Your task to perform on an android device: change timer sound Image 0: 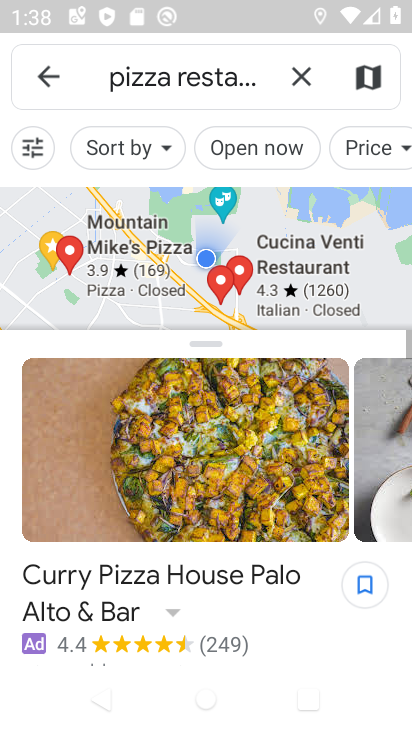
Step 0: press home button
Your task to perform on an android device: change timer sound Image 1: 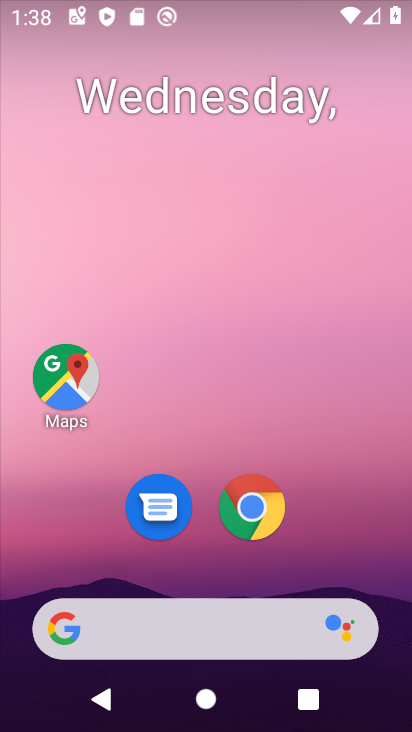
Step 1: drag from (358, 530) to (363, 157)
Your task to perform on an android device: change timer sound Image 2: 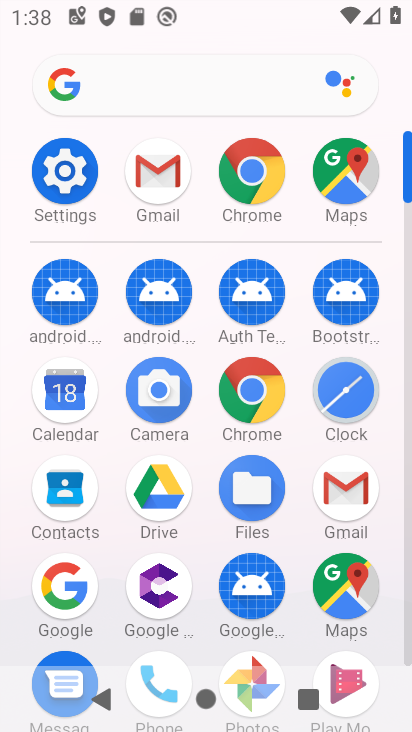
Step 2: click (345, 406)
Your task to perform on an android device: change timer sound Image 3: 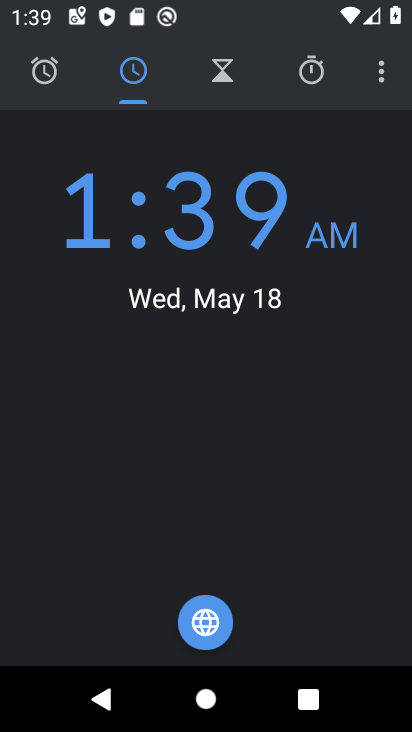
Step 3: drag from (392, 70) to (310, 133)
Your task to perform on an android device: change timer sound Image 4: 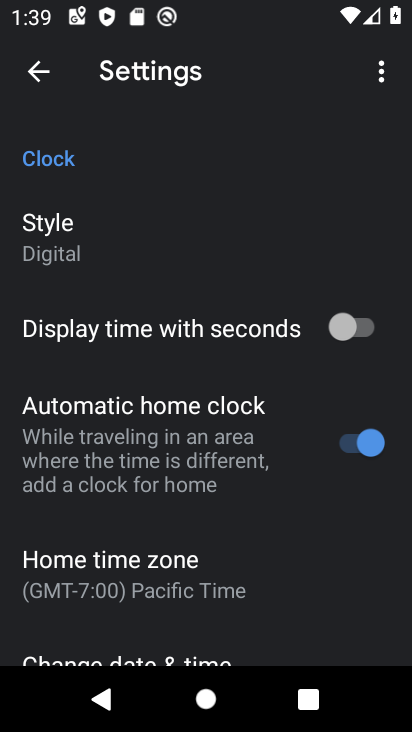
Step 4: drag from (243, 580) to (240, 218)
Your task to perform on an android device: change timer sound Image 5: 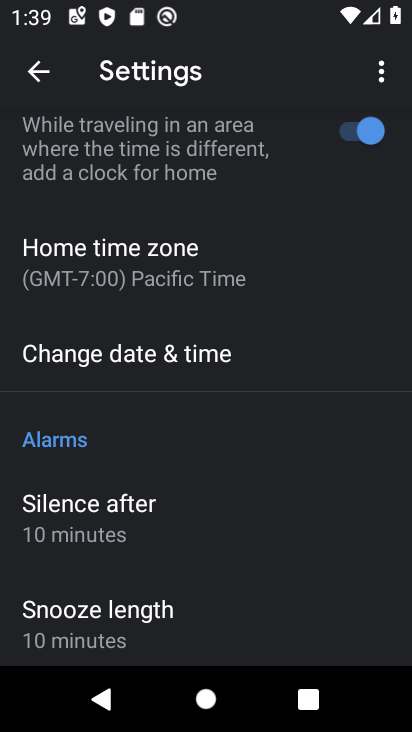
Step 5: drag from (188, 585) to (228, 180)
Your task to perform on an android device: change timer sound Image 6: 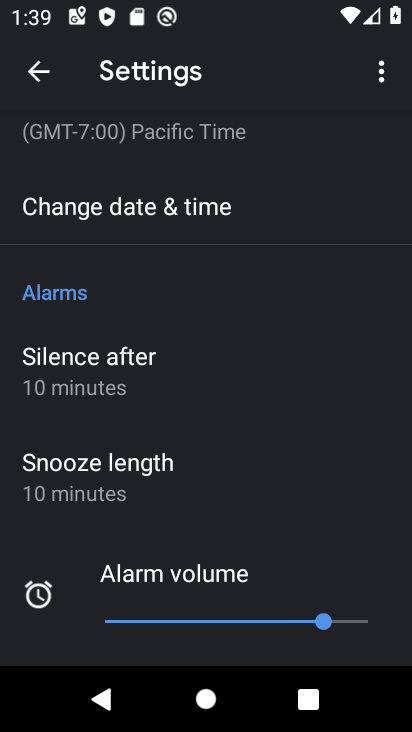
Step 6: drag from (230, 534) to (277, 141)
Your task to perform on an android device: change timer sound Image 7: 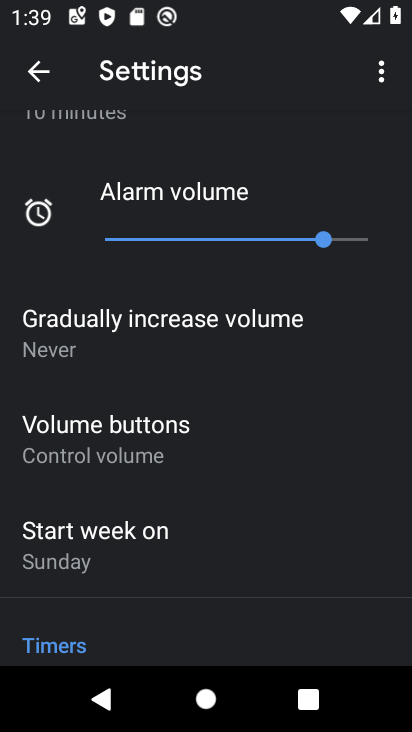
Step 7: drag from (268, 571) to (301, 200)
Your task to perform on an android device: change timer sound Image 8: 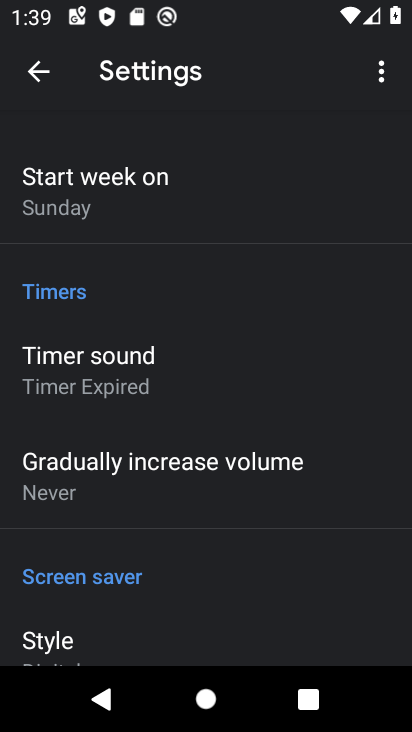
Step 8: click (171, 360)
Your task to perform on an android device: change timer sound Image 9: 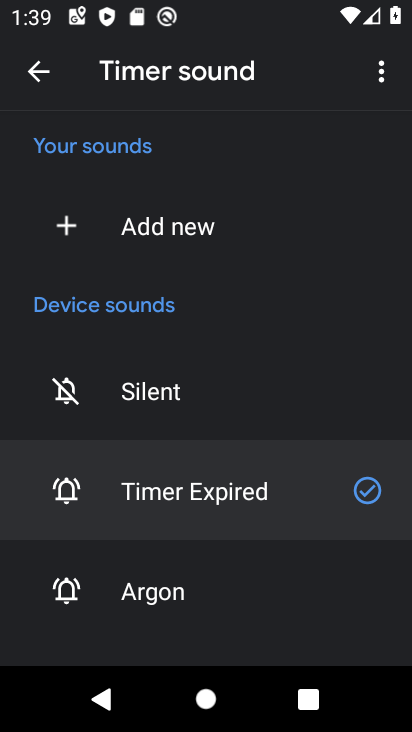
Step 9: click (216, 593)
Your task to perform on an android device: change timer sound Image 10: 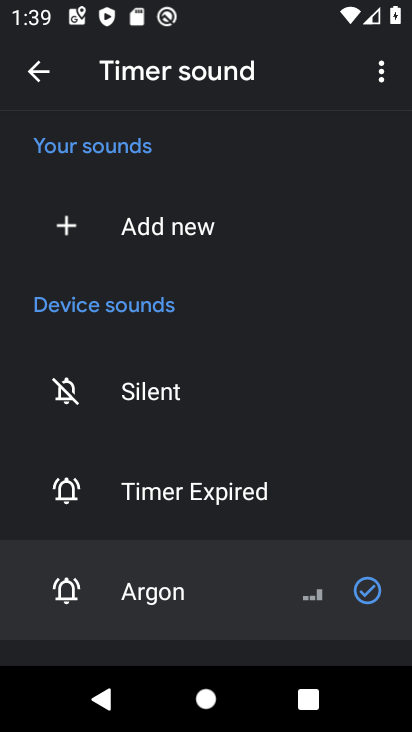
Step 10: task complete